Your task to perform on an android device: Open Reddit.com Image 0: 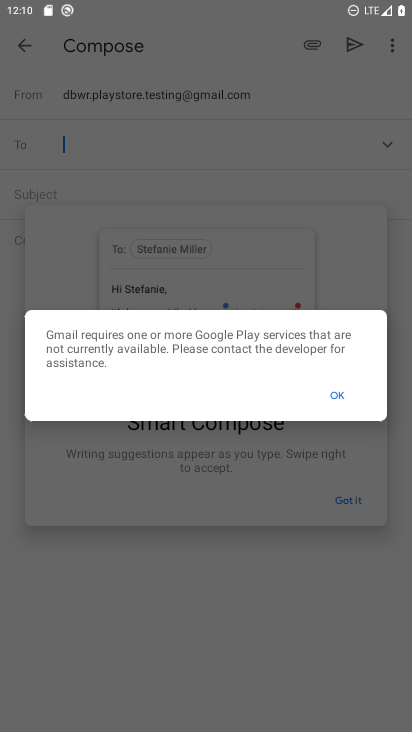
Step 0: press home button
Your task to perform on an android device: Open Reddit.com Image 1: 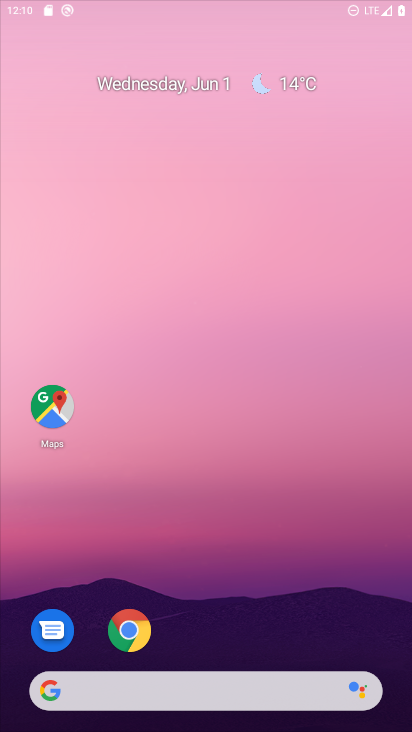
Step 1: drag from (267, 578) to (287, 79)
Your task to perform on an android device: Open Reddit.com Image 2: 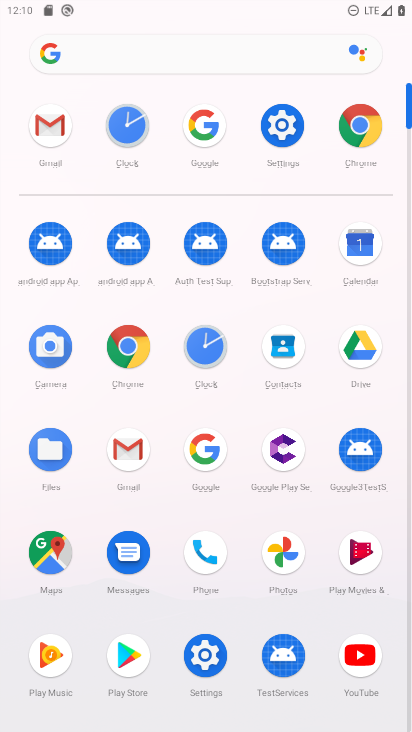
Step 2: click (125, 353)
Your task to perform on an android device: Open Reddit.com Image 3: 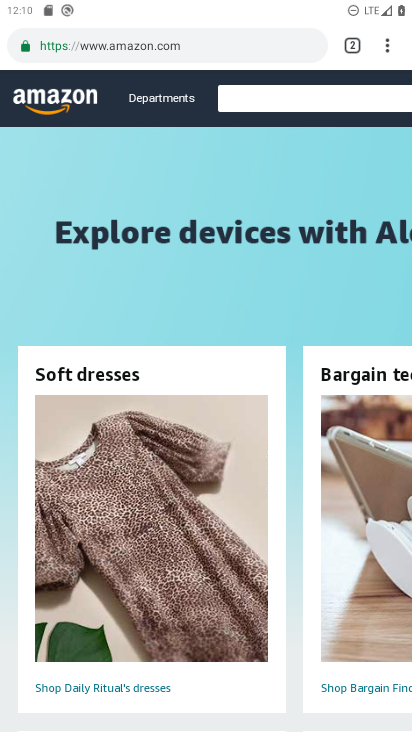
Step 3: click (152, 47)
Your task to perform on an android device: Open Reddit.com Image 4: 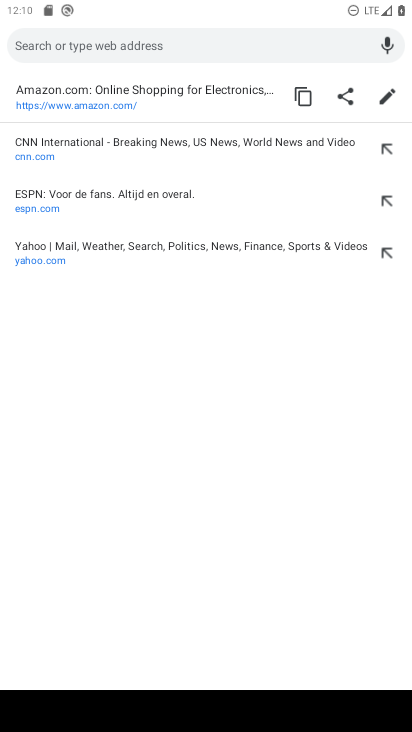
Step 4: type "reddit.com"
Your task to perform on an android device: Open Reddit.com Image 5: 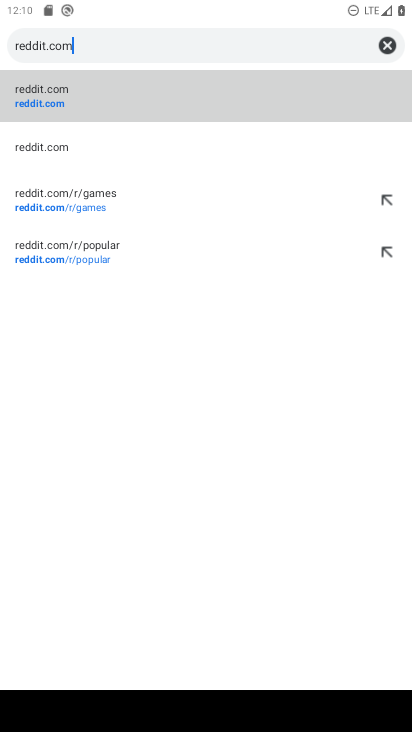
Step 5: click (59, 108)
Your task to perform on an android device: Open Reddit.com Image 6: 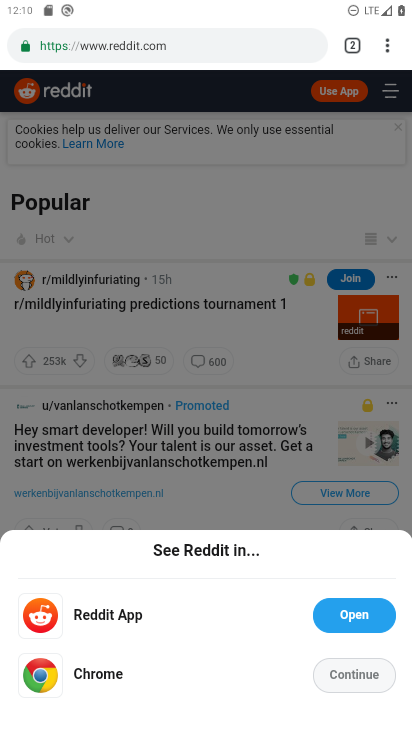
Step 6: task complete